Your task to perform on an android device: move a message to another label in the gmail app Image 0: 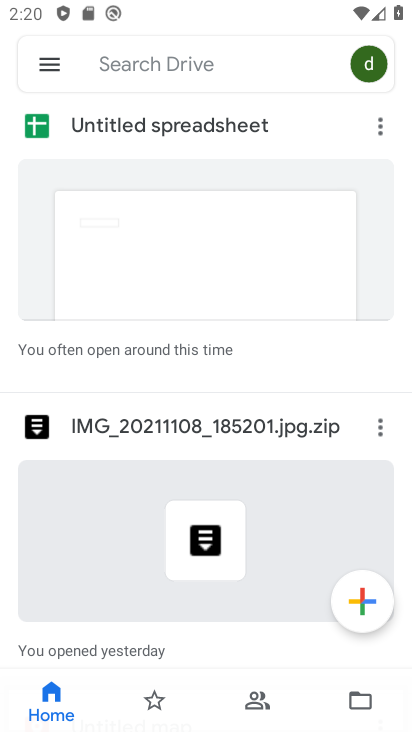
Step 0: press home button
Your task to perform on an android device: move a message to another label in the gmail app Image 1: 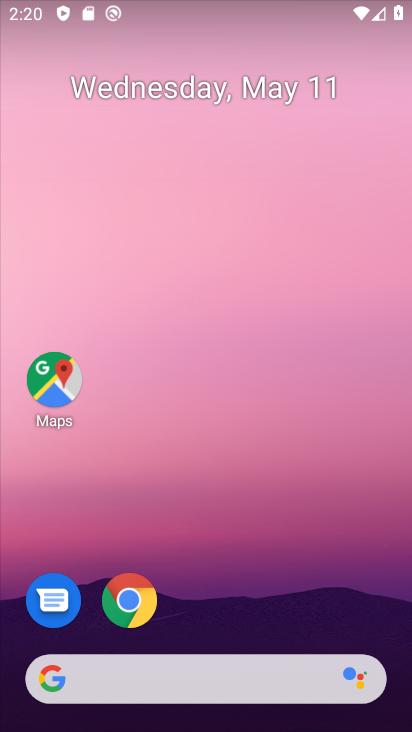
Step 1: drag from (203, 625) to (270, 40)
Your task to perform on an android device: move a message to another label in the gmail app Image 2: 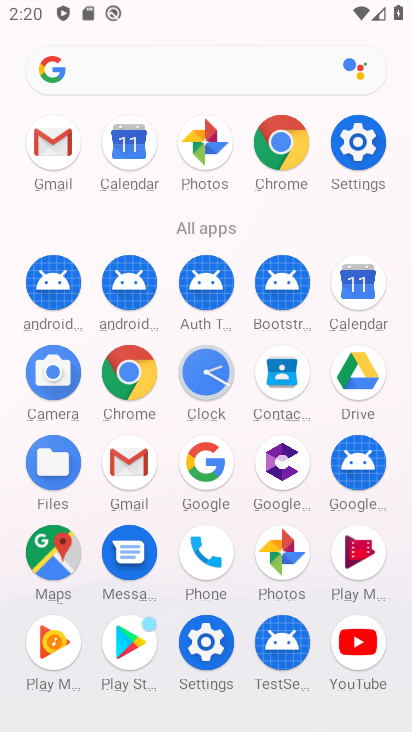
Step 2: click (107, 451)
Your task to perform on an android device: move a message to another label in the gmail app Image 3: 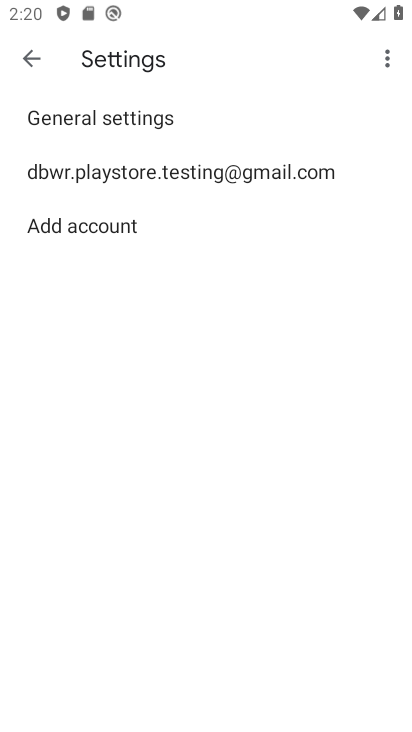
Step 3: click (32, 61)
Your task to perform on an android device: move a message to another label in the gmail app Image 4: 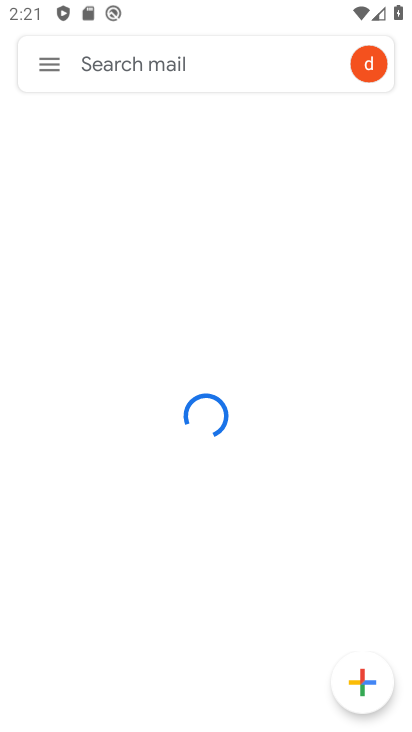
Step 4: task complete